Your task to perform on an android device: turn on priority inbox in the gmail app Image 0: 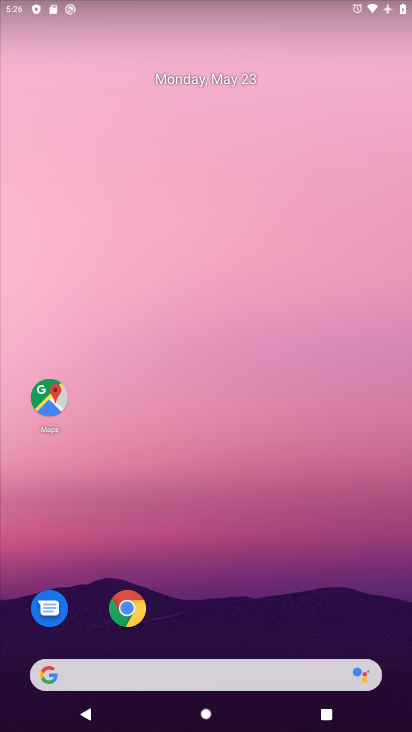
Step 0: drag from (173, 636) to (286, 75)
Your task to perform on an android device: turn on priority inbox in the gmail app Image 1: 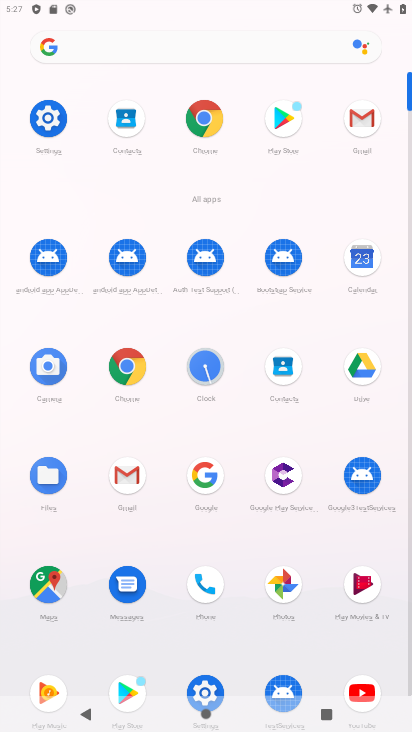
Step 1: click (363, 135)
Your task to perform on an android device: turn on priority inbox in the gmail app Image 2: 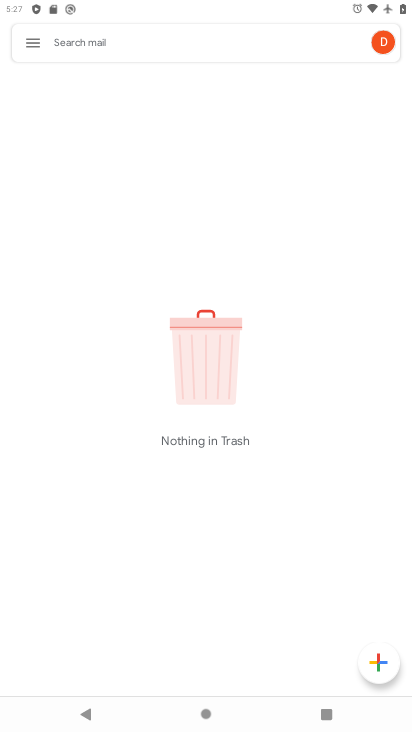
Step 2: click (38, 45)
Your task to perform on an android device: turn on priority inbox in the gmail app Image 3: 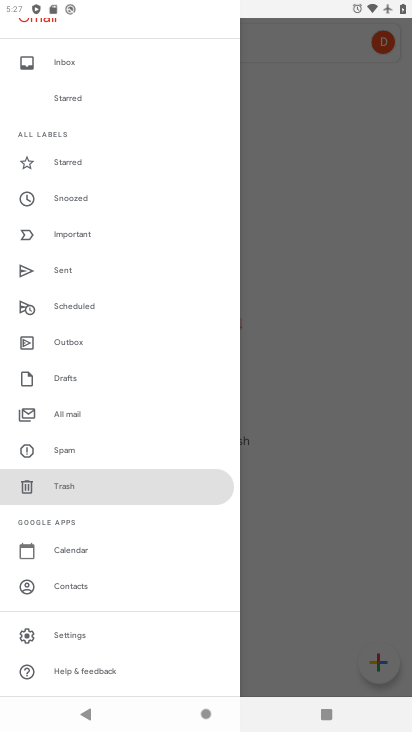
Step 3: click (81, 644)
Your task to perform on an android device: turn on priority inbox in the gmail app Image 4: 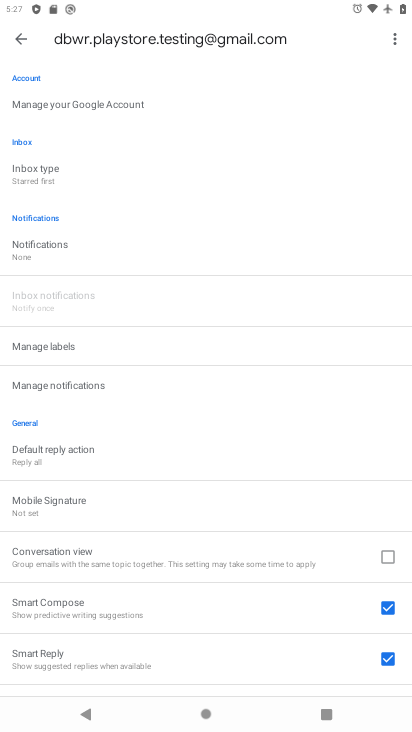
Step 4: click (25, 181)
Your task to perform on an android device: turn on priority inbox in the gmail app Image 5: 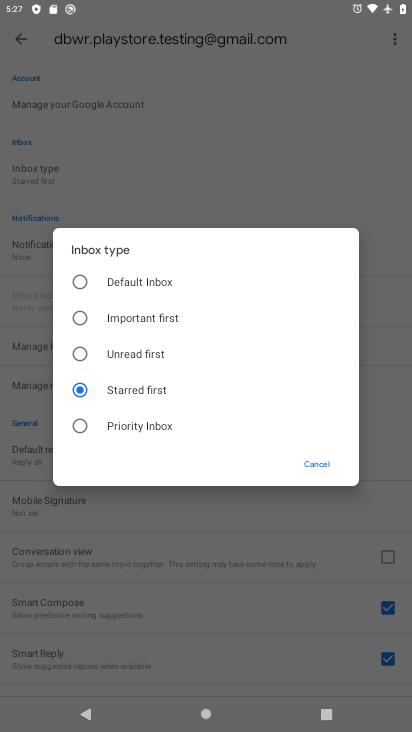
Step 5: click (81, 430)
Your task to perform on an android device: turn on priority inbox in the gmail app Image 6: 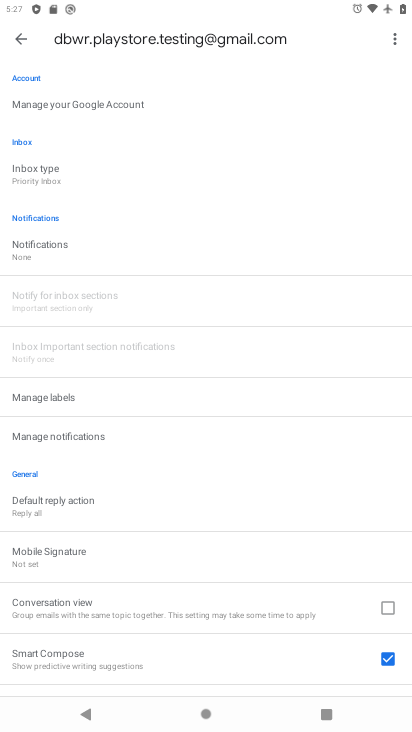
Step 6: task complete